Your task to perform on an android device: open app "AliExpress" (install if not already installed) and go to login screen Image 0: 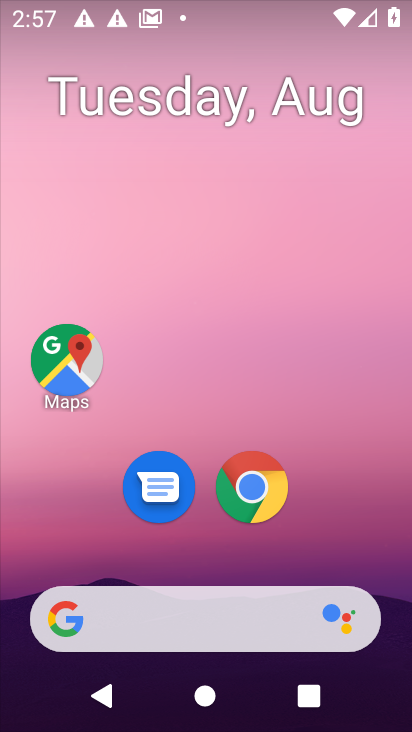
Step 0: drag from (189, 560) to (237, 11)
Your task to perform on an android device: open app "AliExpress" (install if not already installed) and go to login screen Image 1: 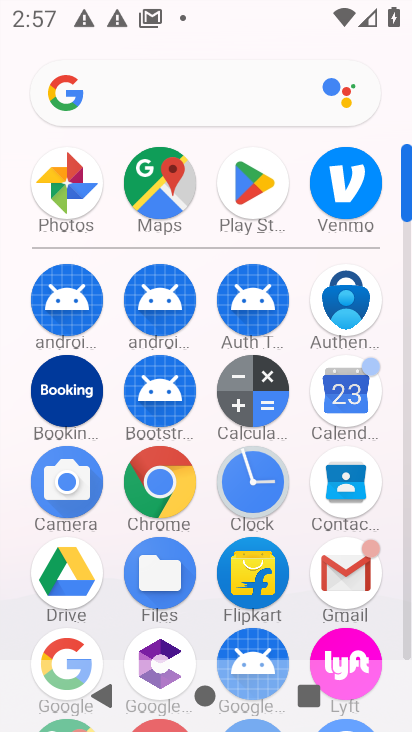
Step 1: click (252, 207)
Your task to perform on an android device: open app "AliExpress" (install if not already installed) and go to login screen Image 2: 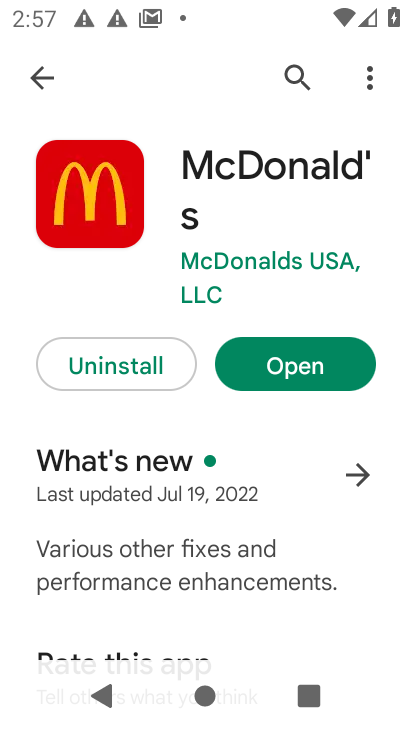
Step 2: press back button
Your task to perform on an android device: open app "AliExpress" (install if not already installed) and go to login screen Image 3: 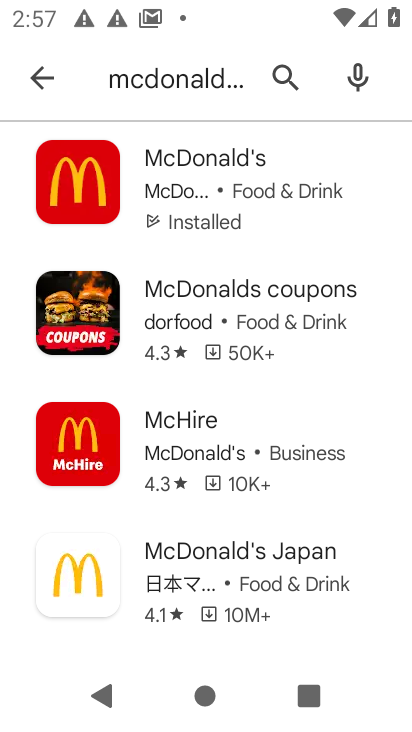
Step 3: press back button
Your task to perform on an android device: open app "AliExpress" (install if not already installed) and go to login screen Image 4: 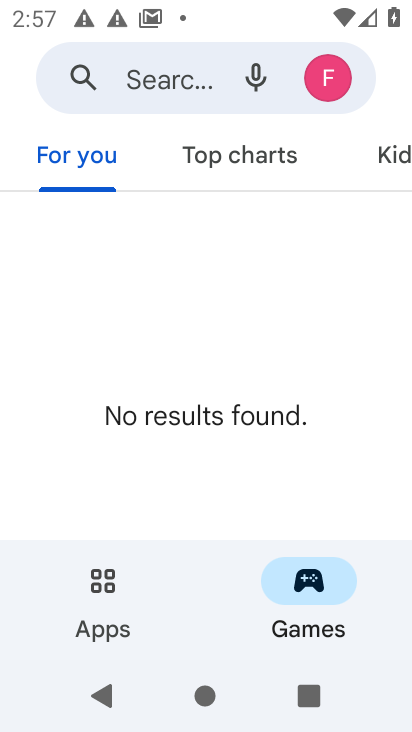
Step 4: click (194, 88)
Your task to perform on an android device: open app "AliExpress" (install if not already installed) and go to login screen Image 5: 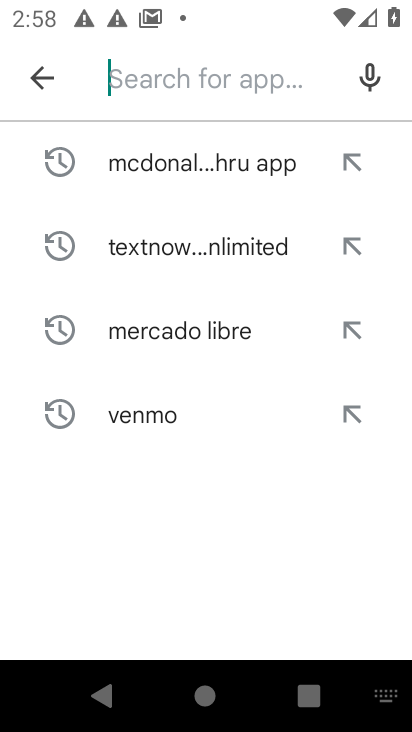
Step 5: type "AliExpress"
Your task to perform on an android device: open app "AliExpress" (install if not already installed) and go to login screen Image 6: 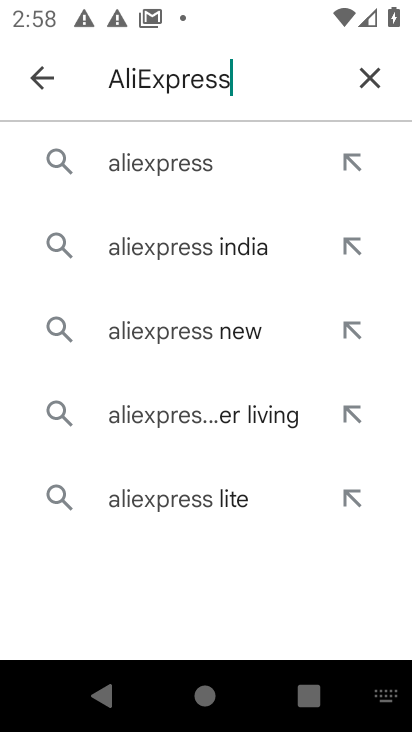
Step 6: click (187, 171)
Your task to perform on an android device: open app "AliExpress" (install if not already installed) and go to login screen Image 7: 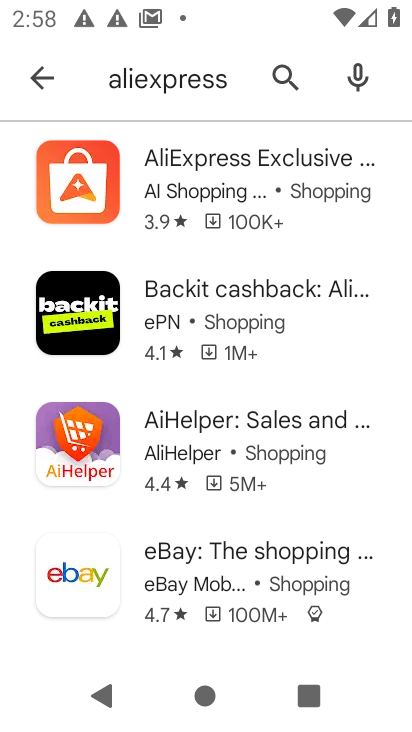
Step 7: click (258, 152)
Your task to perform on an android device: open app "AliExpress" (install if not already installed) and go to login screen Image 8: 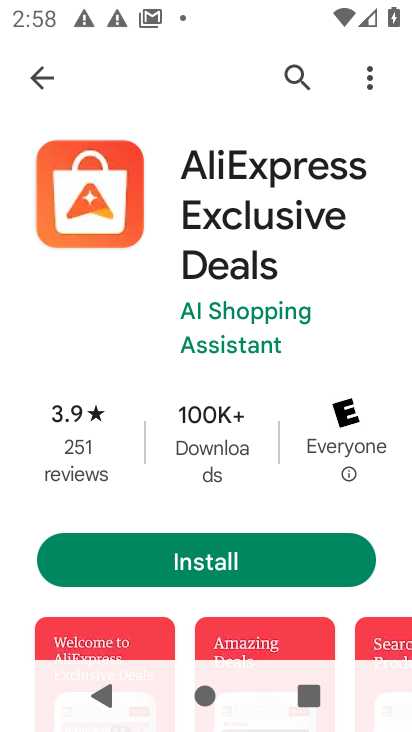
Step 8: task complete